Your task to perform on an android device: Open settings on Google Maps Image 0: 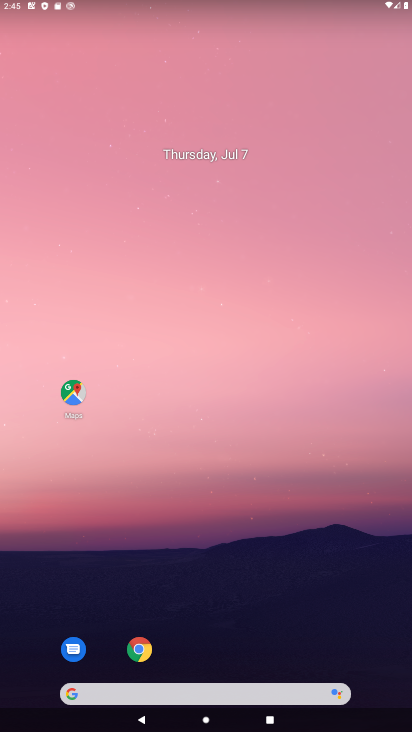
Step 0: drag from (321, 660) to (336, 155)
Your task to perform on an android device: Open settings on Google Maps Image 1: 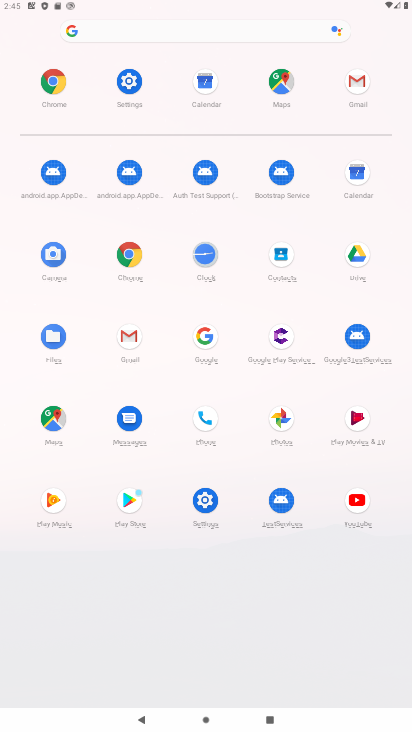
Step 1: click (49, 414)
Your task to perform on an android device: Open settings on Google Maps Image 2: 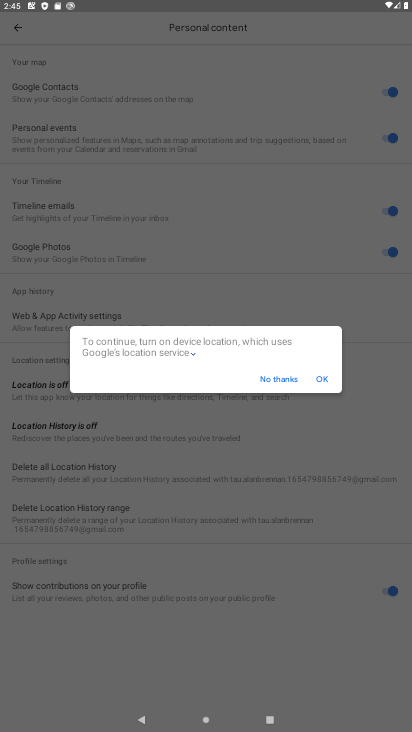
Step 2: task complete